Your task to perform on an android device: Turn on the flashlight Image 0: 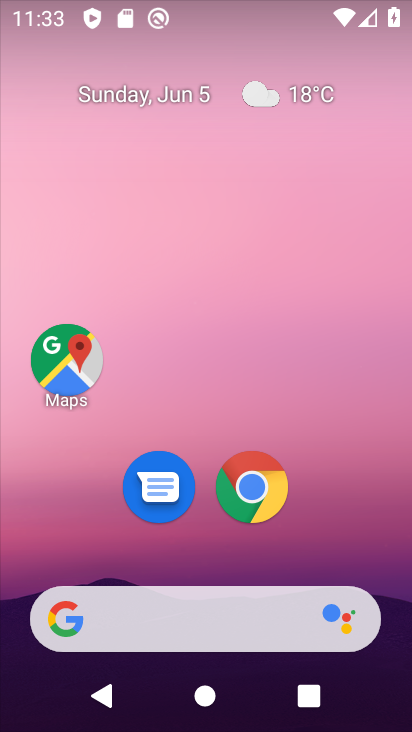
Step 0: drag from (379, 515) to (353, 119)
Your task to perform on an android device: Turn on the flashlight Image 1: 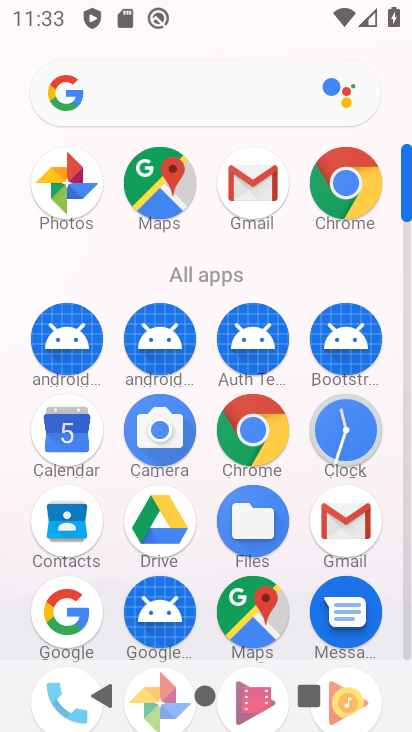
Step 1: click (233, 451)
Your task to perform on an android device: Turn on the flashlight Image 2: 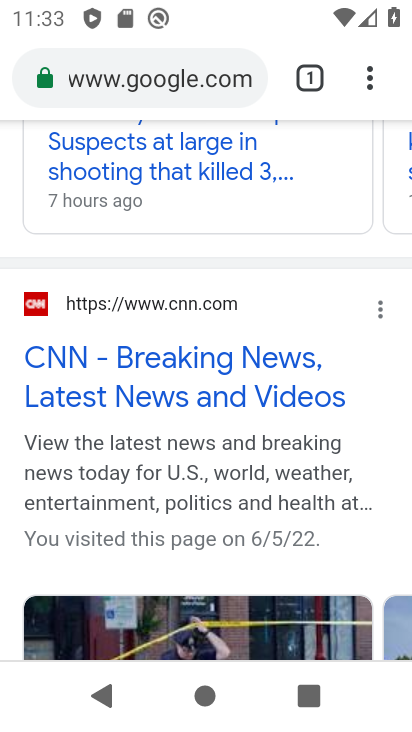
Step 2: click (193, 86)
Your task to perform on an android device: Turn on the flashlight Image 3: 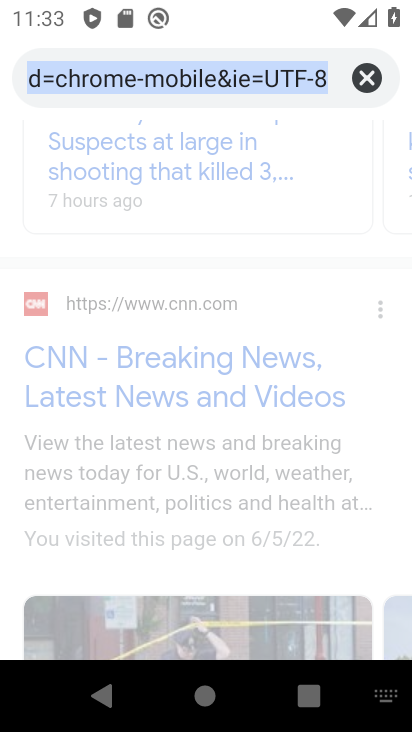
Step 3: click (347, 81)
Your task to perform on an android device: Turn on the flashlight Image 4: 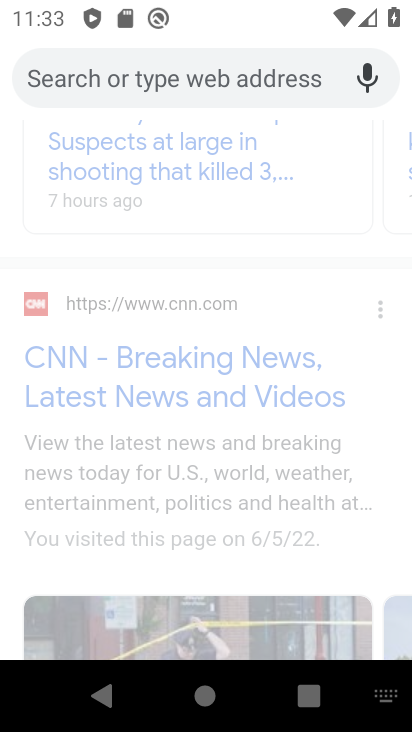
Step 4: type "flashlight"
Your task to perform on an android device: Turn on the flashlight Image 5: 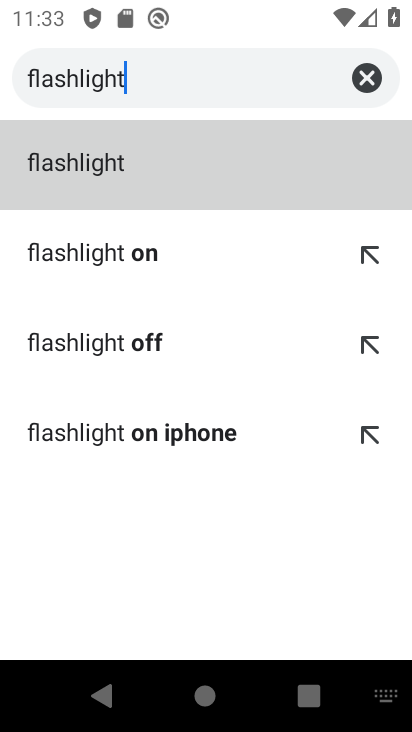
Step 5: press home button
Your task to perform on an android device: Turn on the flashlight Image 6: 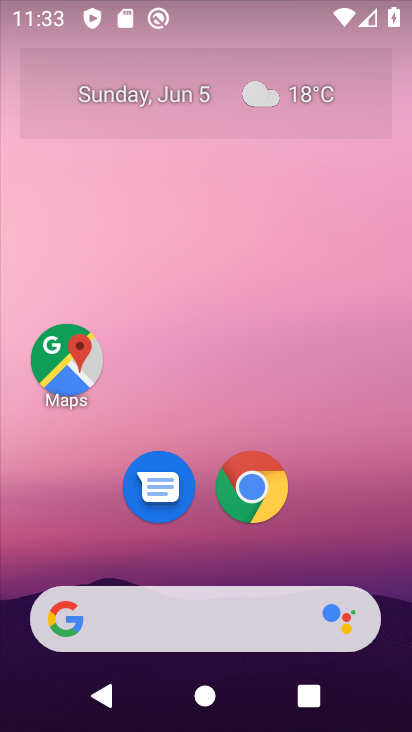
Step 6: drag from (353, 304) to (355, 131)
Your task to perform on an android device: Turn on the flashlight Image 7: 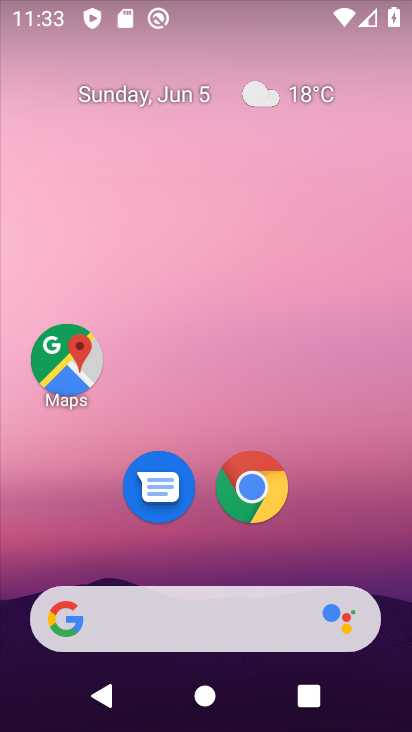
Step 7: drag from (327, 546) to (351, 169)
Your task to perform on an android device: Turn on the flashlight Image 8: 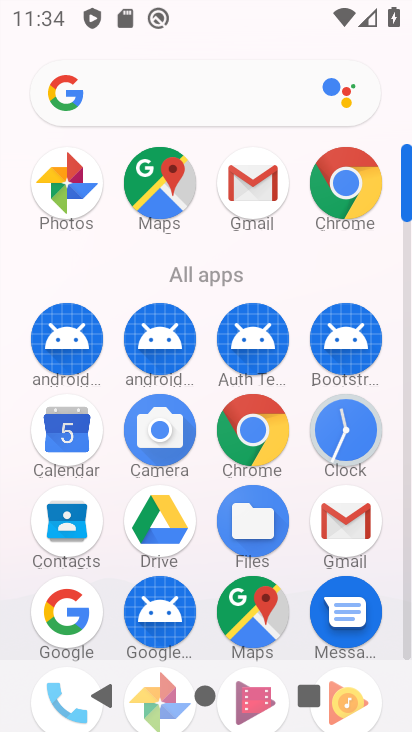
Step 8: drag from (164, 639) to (219, 184)
Your task to perform on an android device: Turn on the flashlight Image 9: 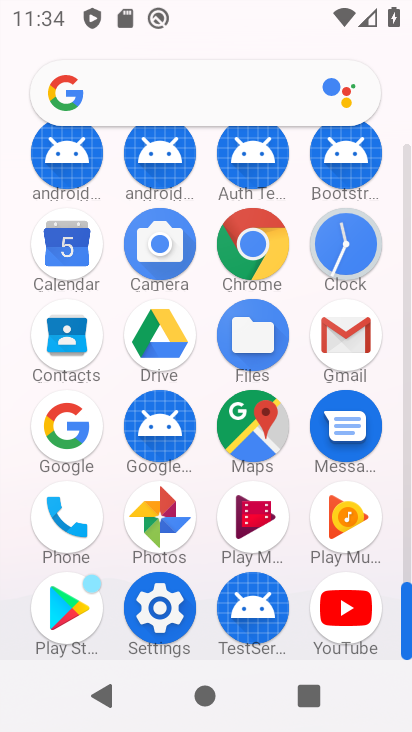
Step 9: click (137, 624)
Your task to perform on an android device: Turn on the flashlight Image 10: 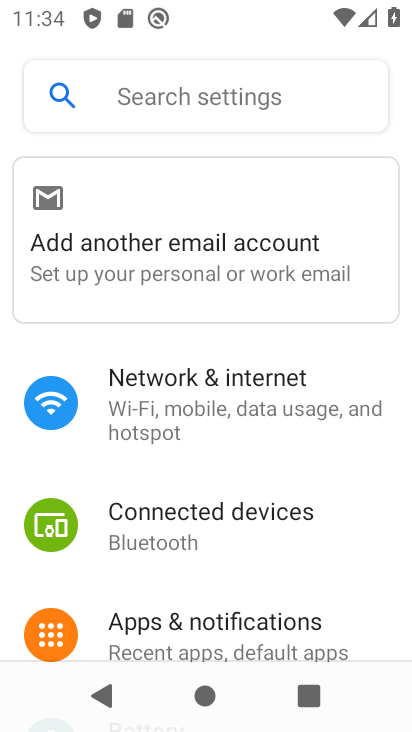
Step 10: click (280, 91)
Your task to perform on an android device: Turn on the flashlight Image 11: 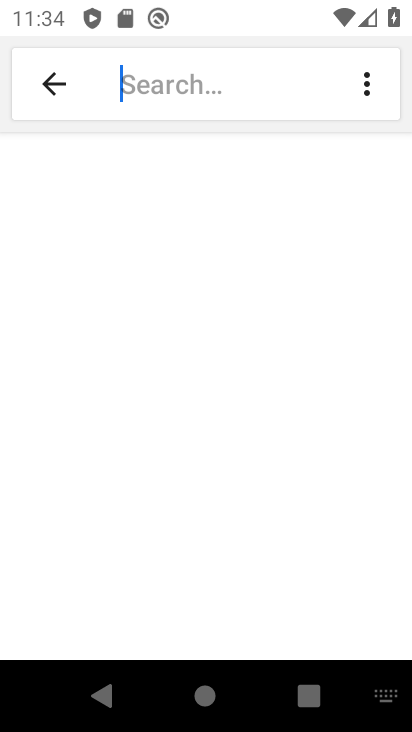
Step 11: type "flashlight"
Your task to perform on an android device: Turn on the flashlight Image 12: 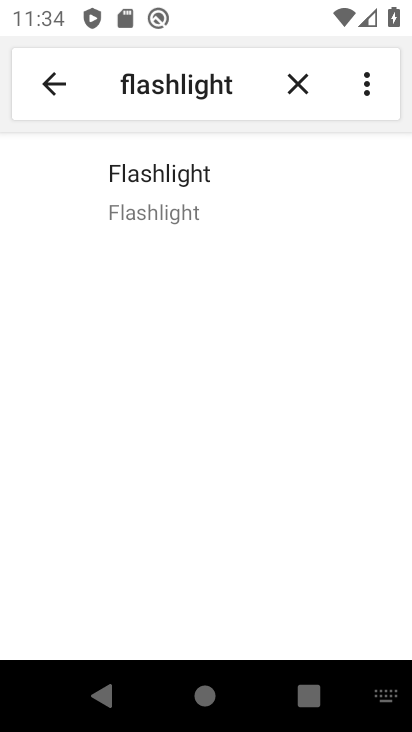
Step 12: click (170, 206)
Your task to perform on an android device: Turn on the flashlight Image 13: 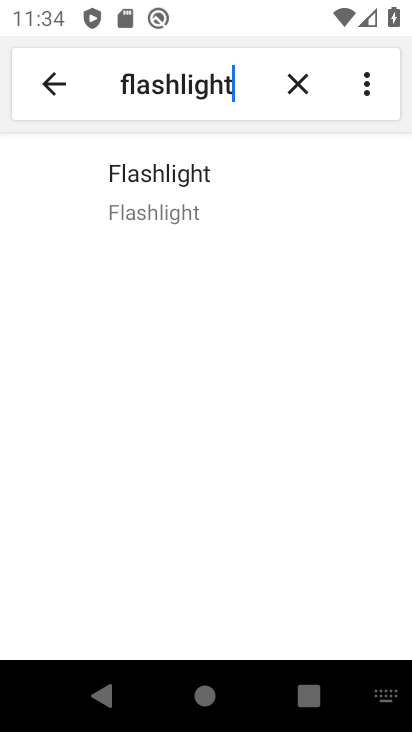
Step 13: task complete